Your task to perform on an android device: install app "Gmail" Image 0: 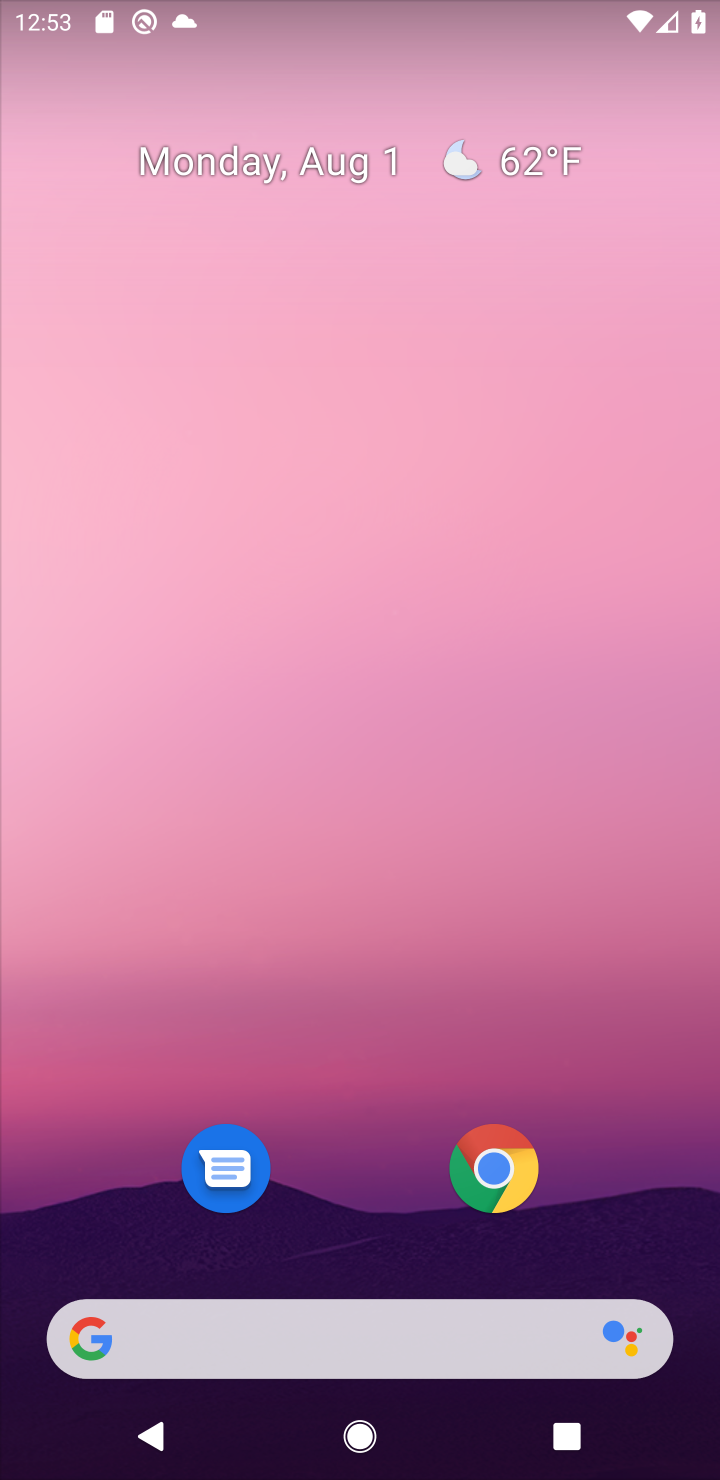
Step 0: drag from (406, 1462) to (406, 144)
Your task to perform on an android device: install app "Gmail" Image 1: 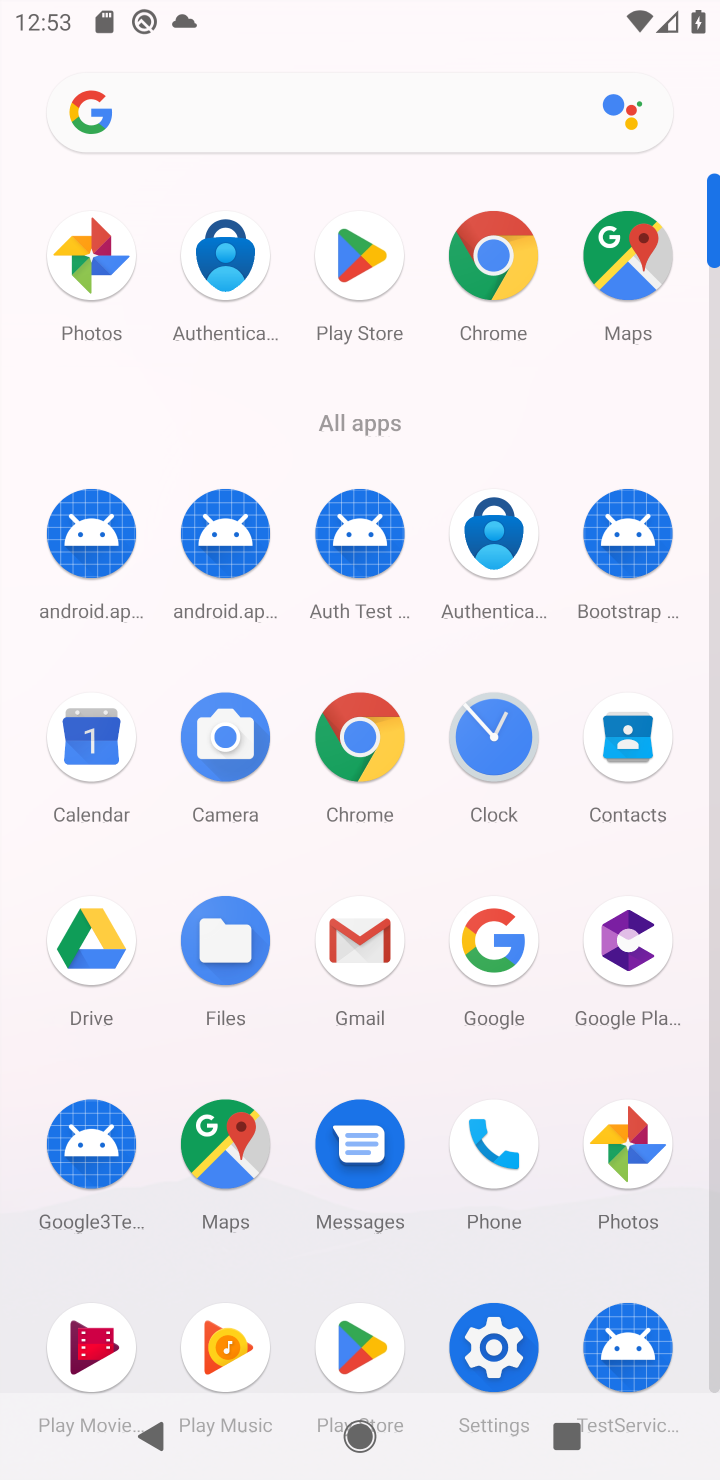
Step 1: click (348, 256)
Your task to perform on an android device: install app "Gmail" Image 2: 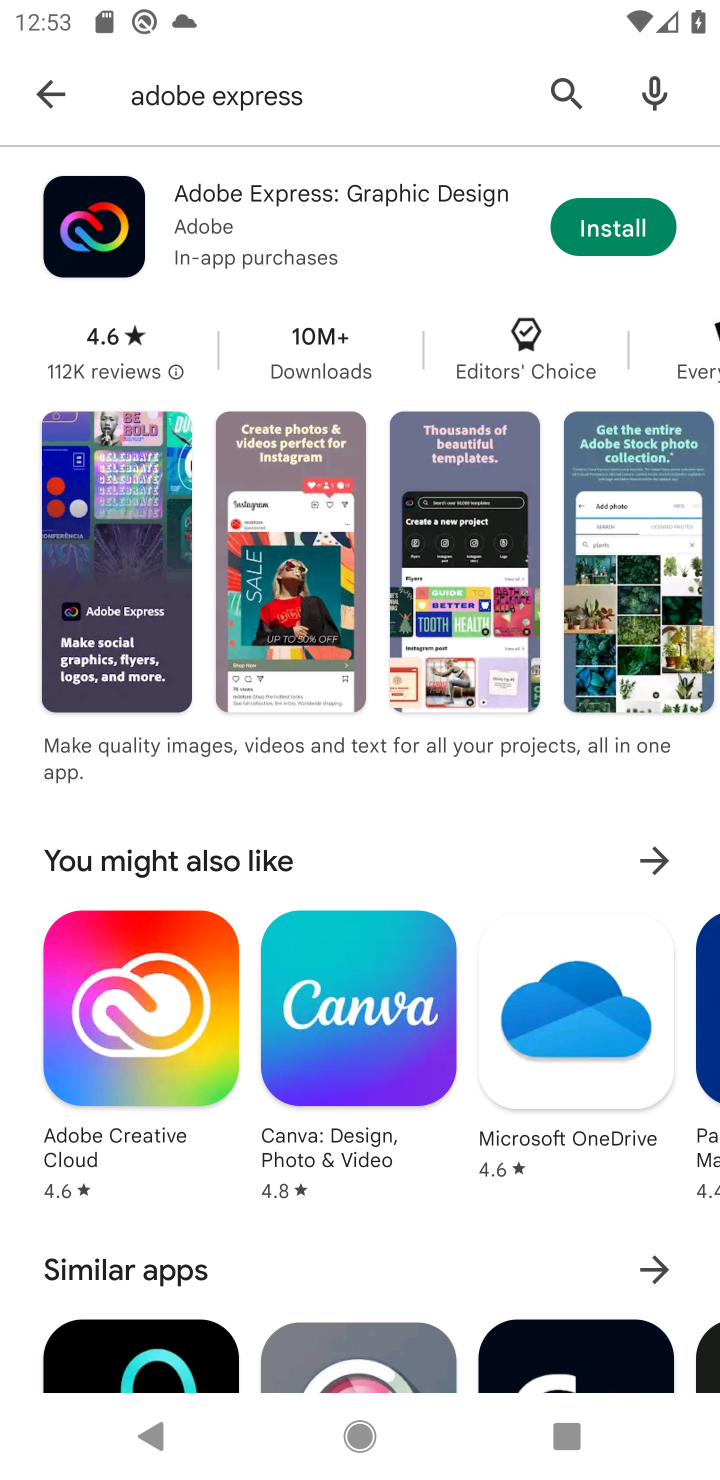
Step 2: click (558, 78)
Your task to perform on an android device: install app "Gmail" Image 3: 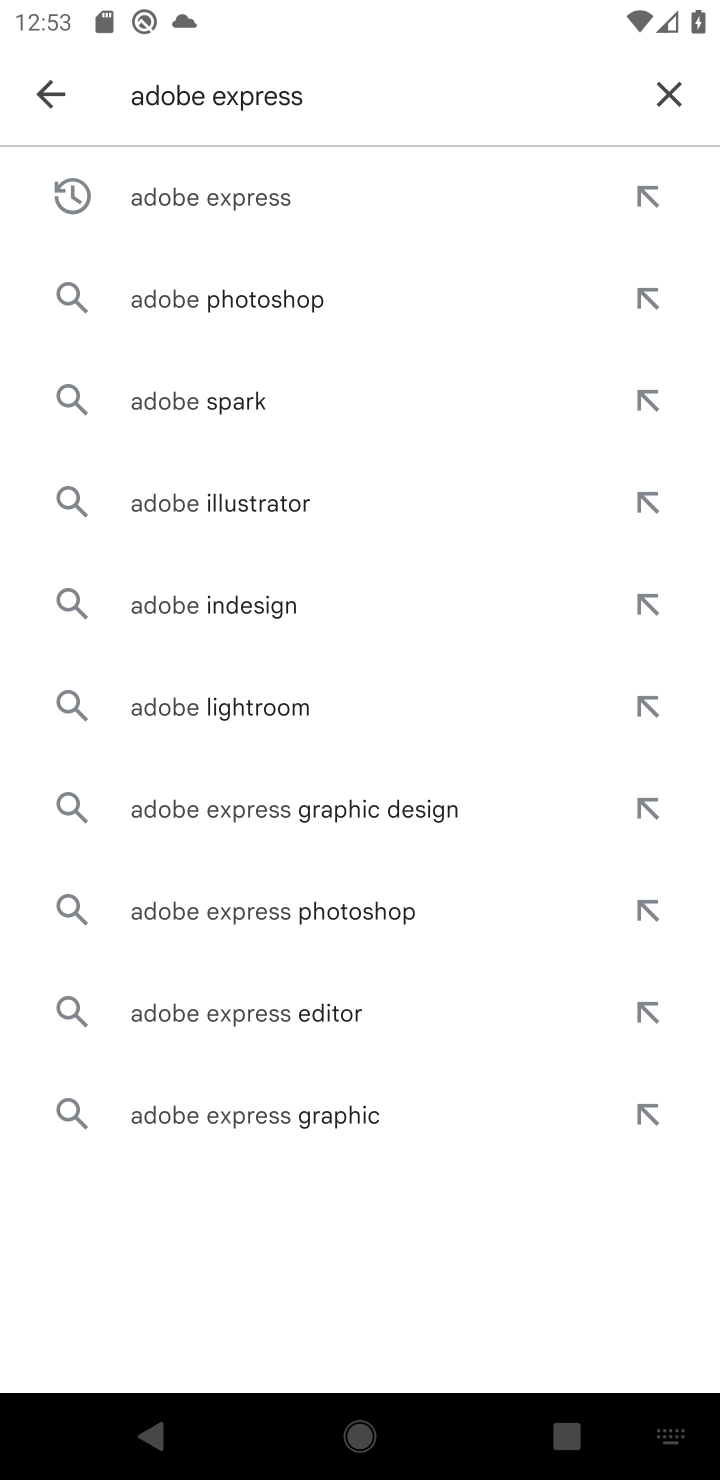
Step 3: click (672, 90)
Your task to perform on an android device: install app "Gmail" Image 4: 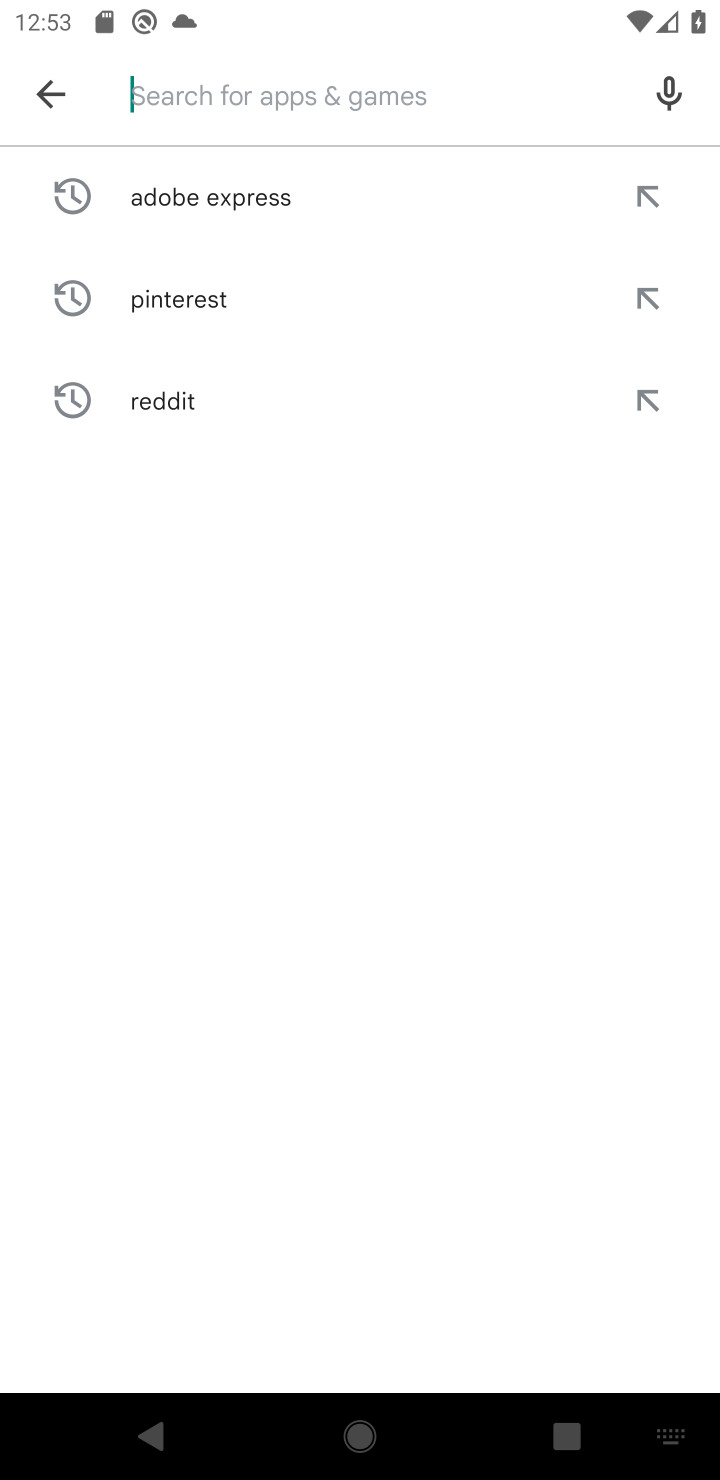
Step 4: type "Gmail"
Your task to perform on an android device: install app "Gmail" Image 5: 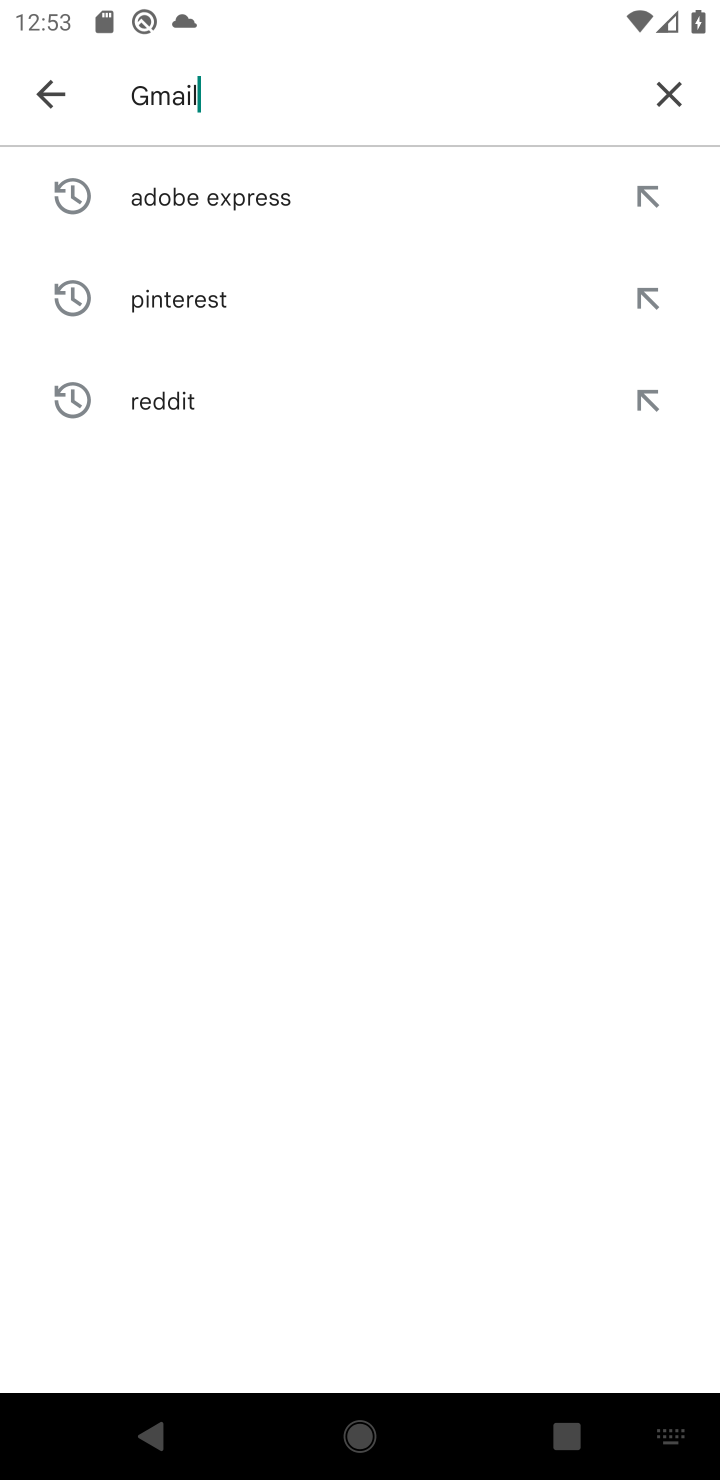
Step 5: type ""
Your task to perform on an android device: install app "Gmail" Image 6: 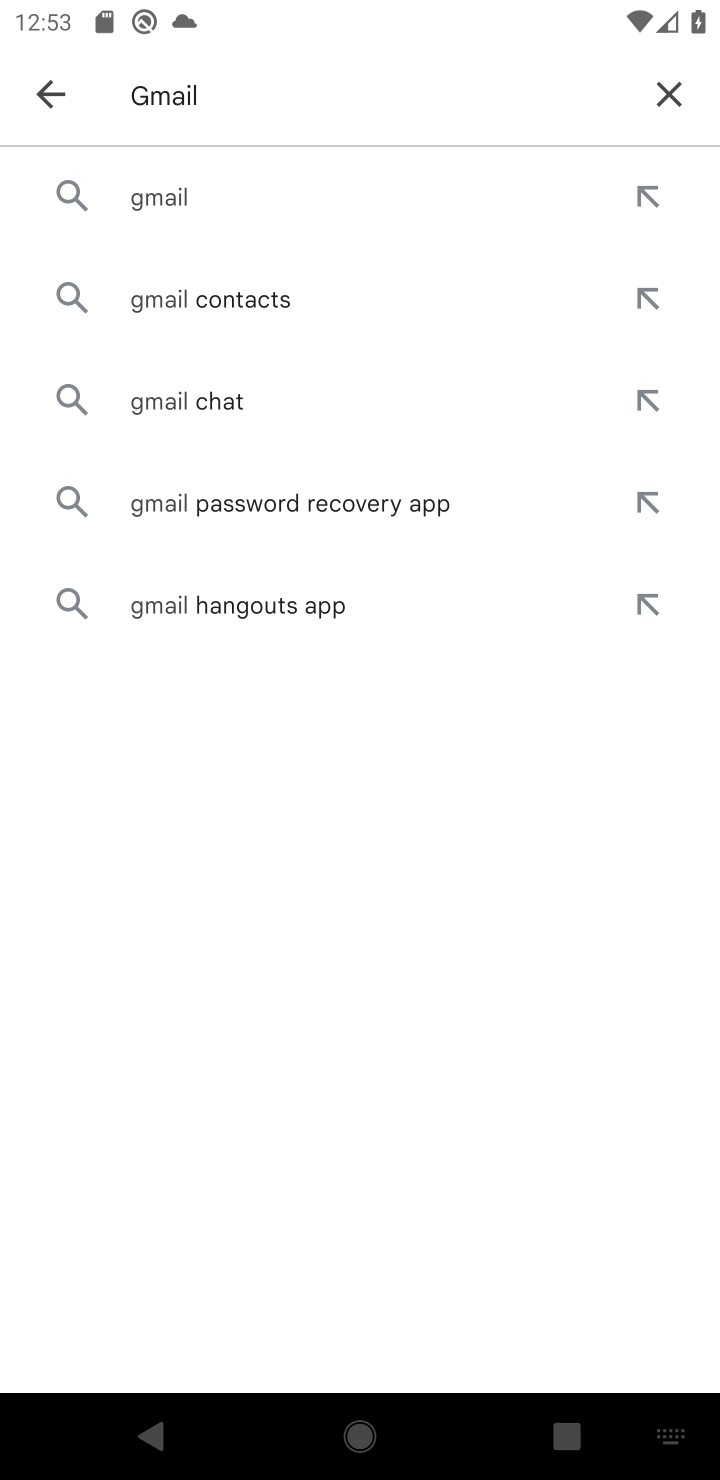
Step 6: click (149, 198)
Your task to perform on an android device: install app "Gmail" Image 7: 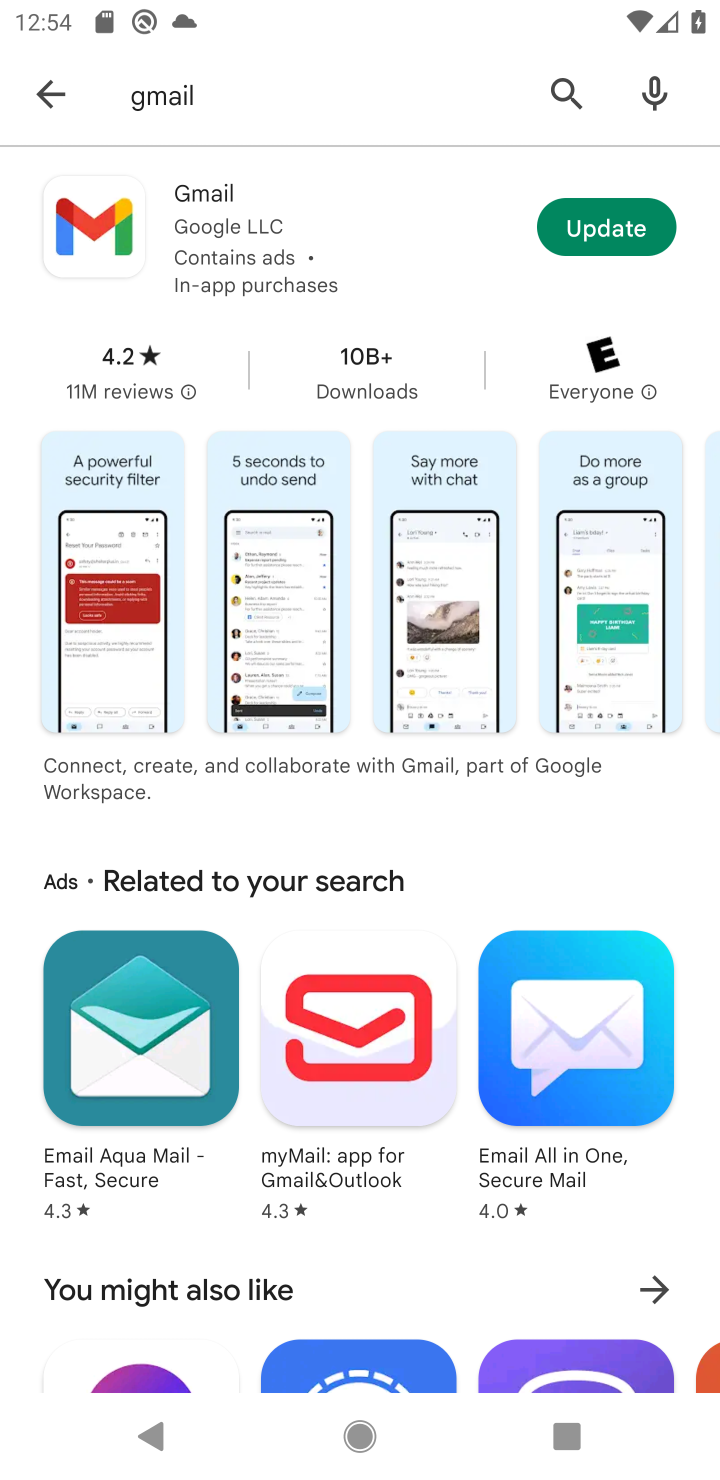
Step 7: click (231, 228)
Your task to perform on an android device: install app "Gmail" Image 8: 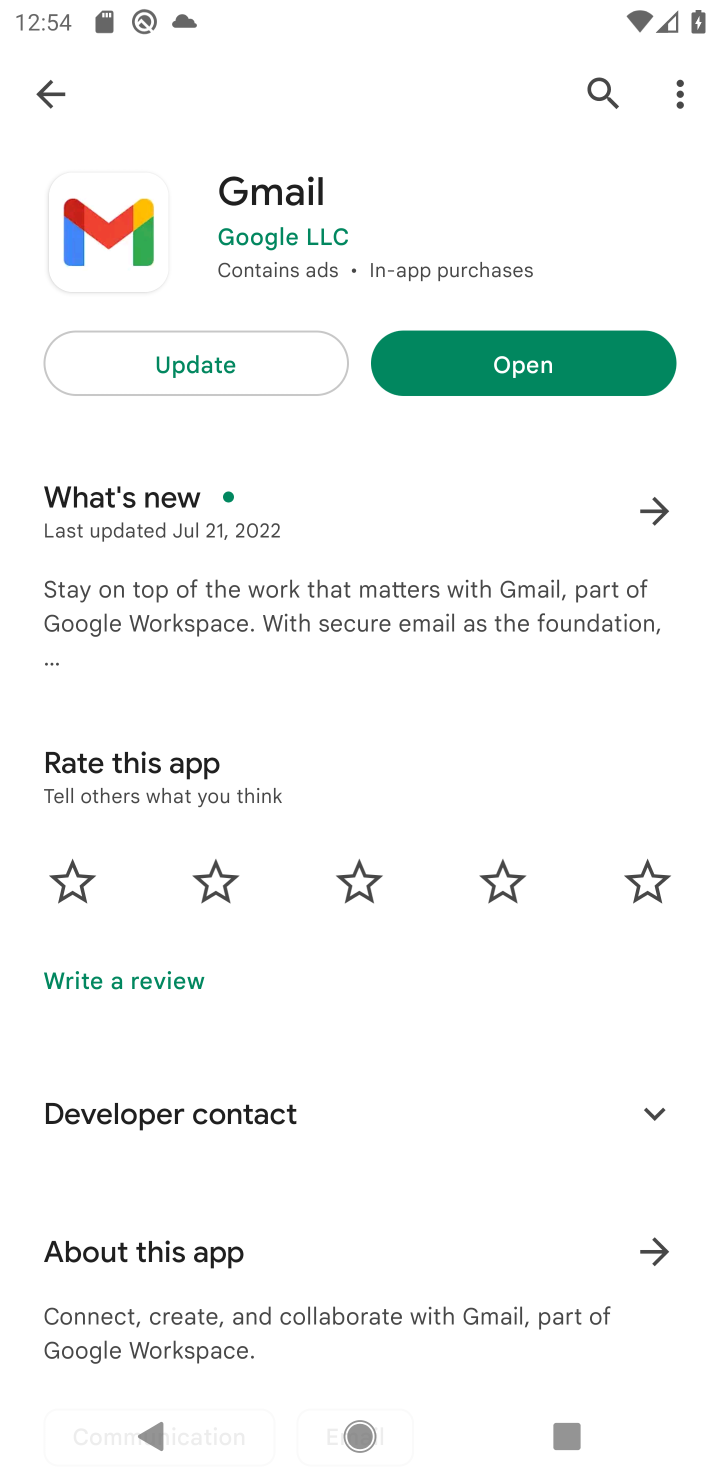
Step 8: task complete